Your task to perform on an android device: Go to display settings Image 0: 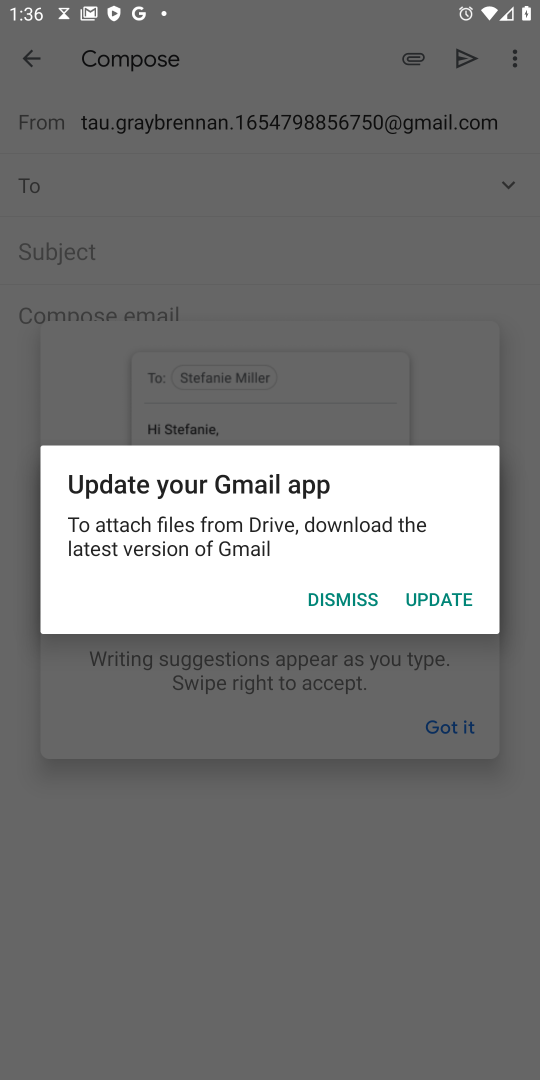
Step 0: press home button
Your task to perform on an android device: Go to display settings Image 1: 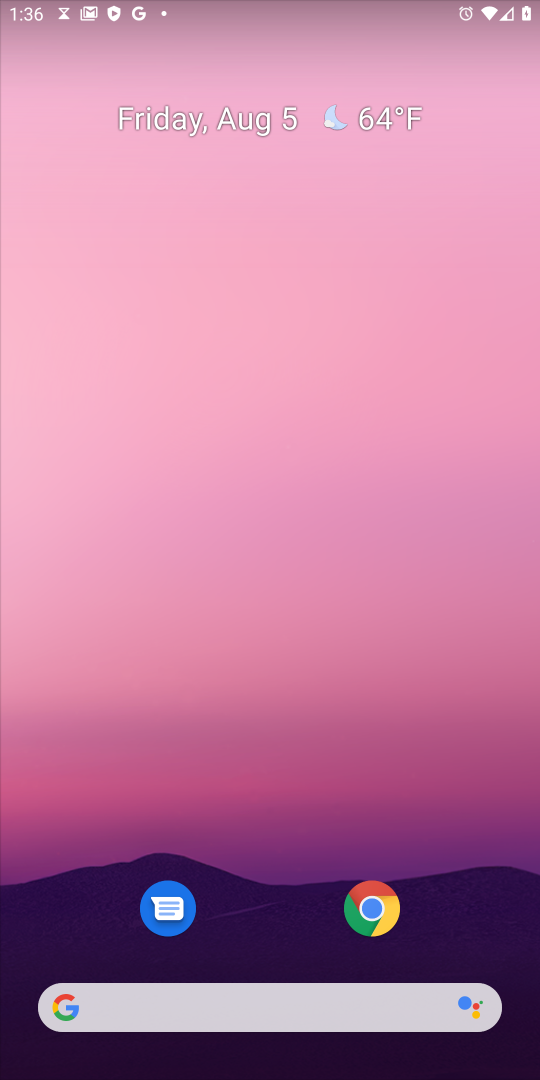
Step 1: drag from (232, 902) to (226, 64)
Your task to perform on an android device: Go to display settings Image 2: 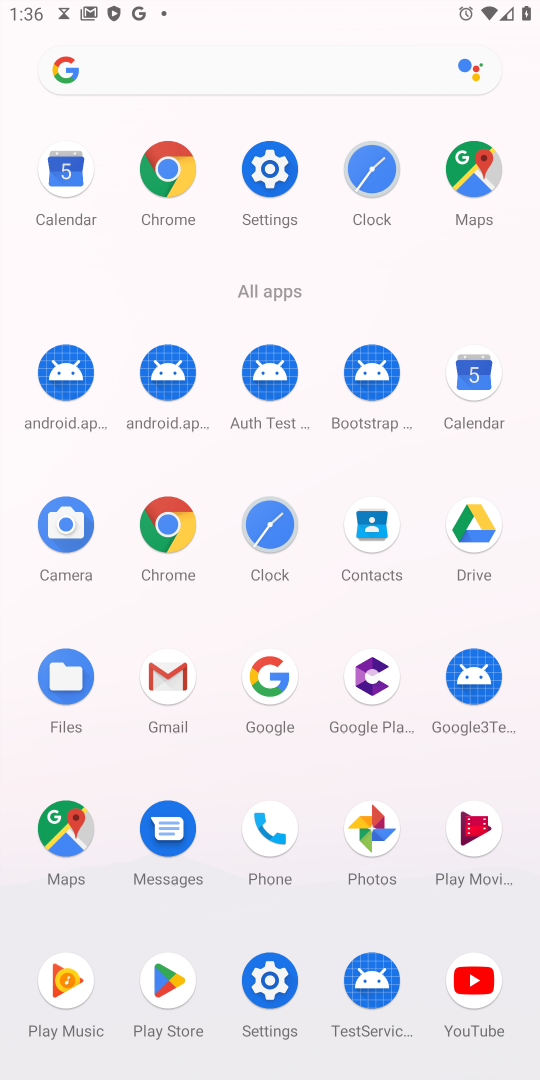
Step 2: click (275, 978)
Your task to perform on an android device: Go to display settings Image 3: 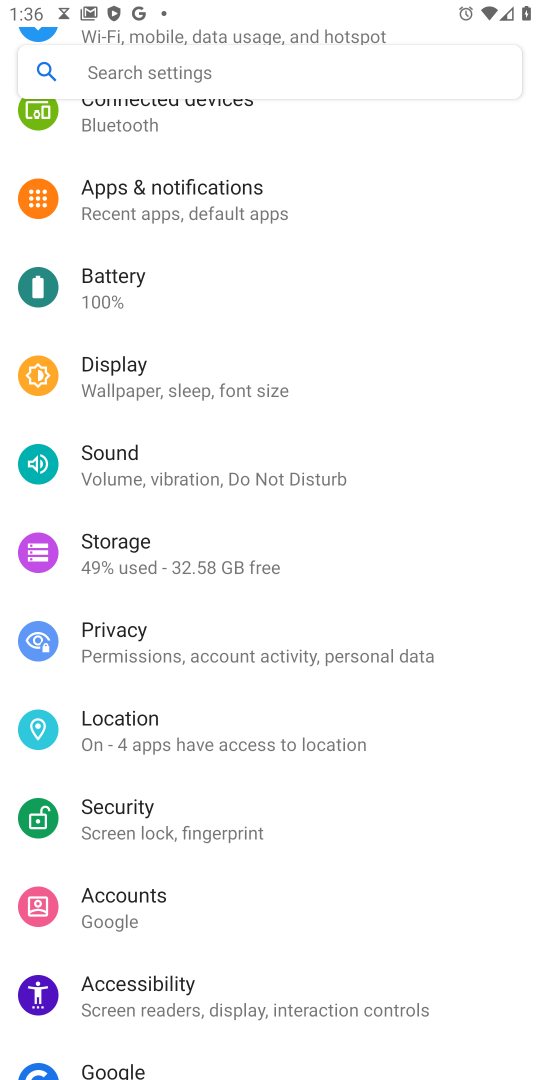
Step 3: click (154, 369)
Your task to perform on an android device: Go to display settings Image 4: 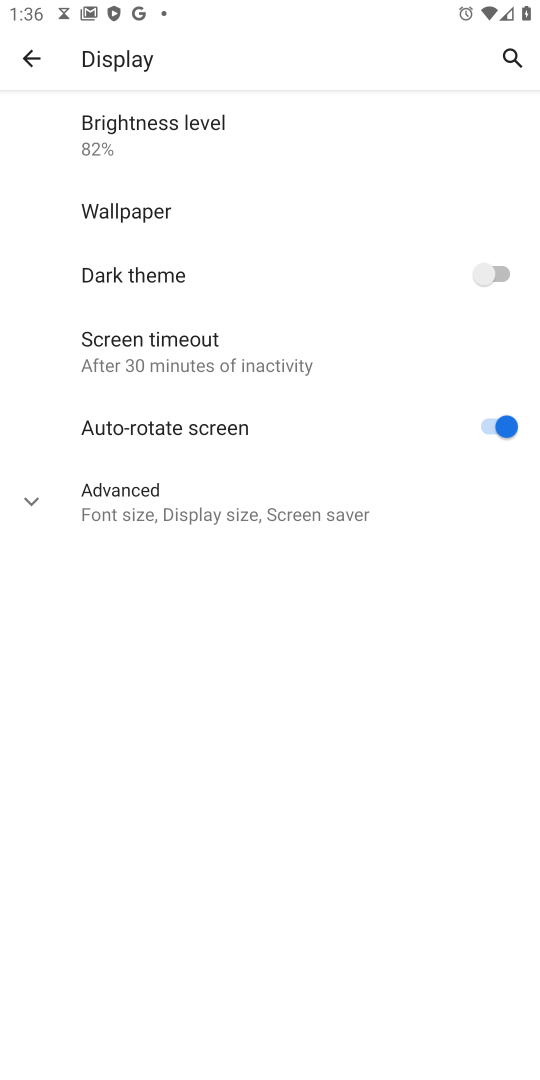
Step 4: task complete